Your task to perform on an android device: Open my contact list Image 0: 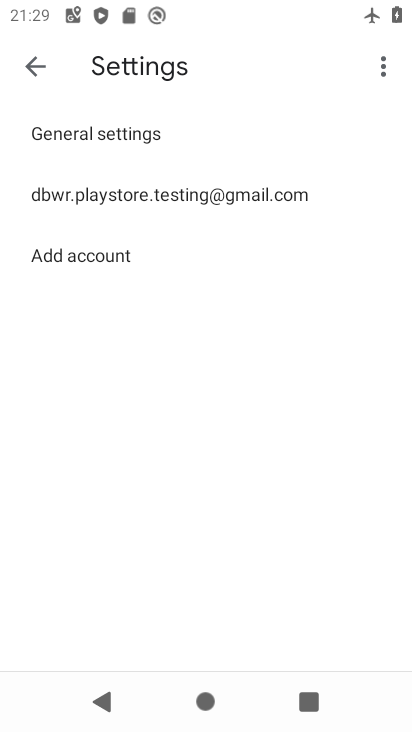
Step 0: press home button
Your task to perform on an android device: Open my contact list Image 1: 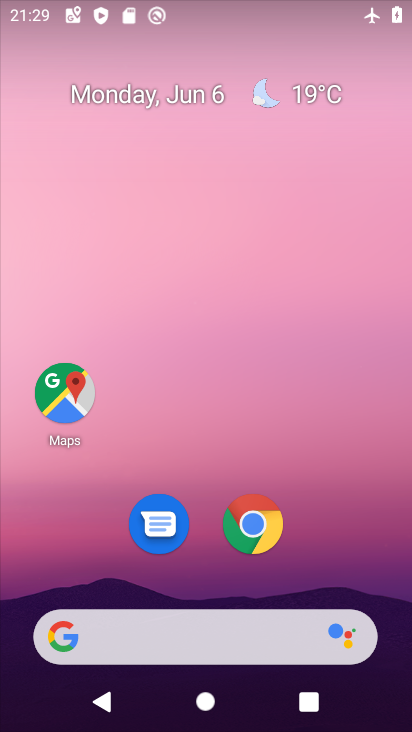
Step 1: drag from (286, 460) to (282, 25)
Your task to perform on an android device: Open my contact list Image 2: 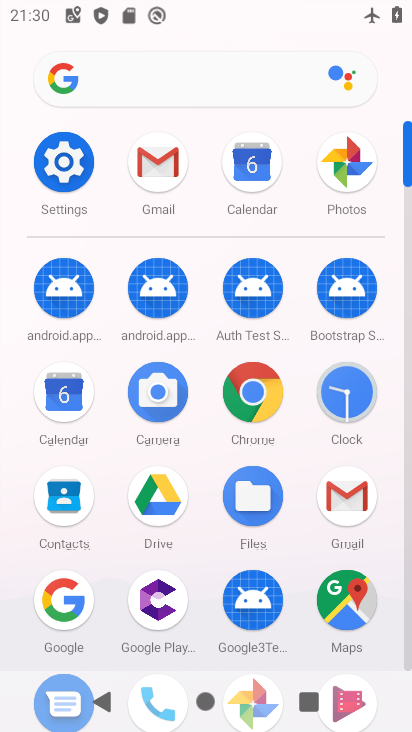
Step 2: click (67, 482)
Your task to perform on an android device: Open my contact list Image 3: 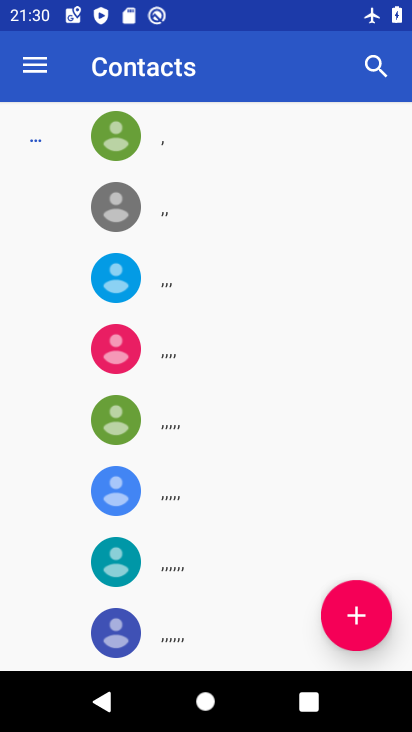
Step 3: task complete